Your task to perform on an android device: move a message to another label in the gmail app Image 0: 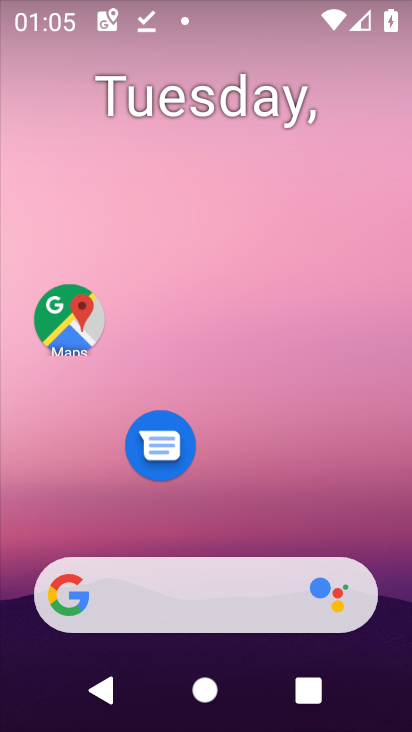
Step 0: drag from (300, 500) to (230, 32)
Your task to perform on an android device: move a message to another label in the gmail app Image 1: 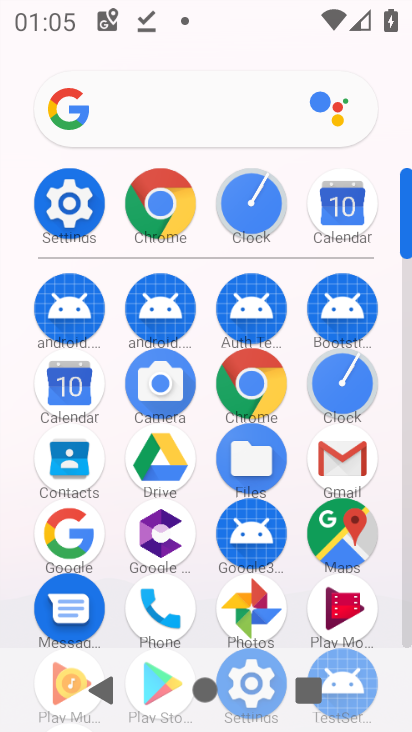
Step 1: click (329, 464)
Your task to perform on an android device: move a message to another label in the gmail app Image 2: 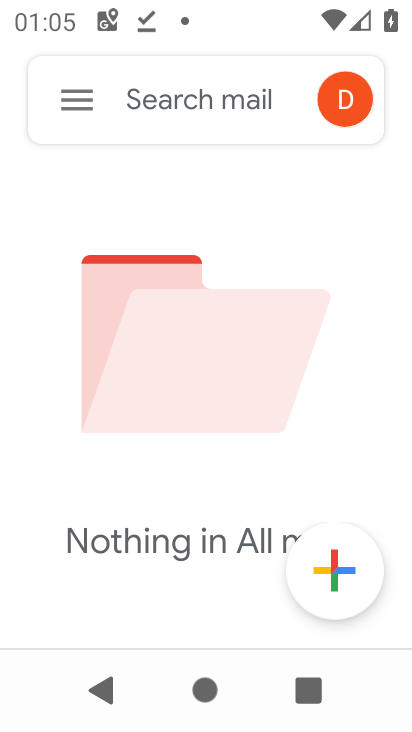
Step 2: task complete